Your task to perform on an android device: empty trash in google photos Image 0: 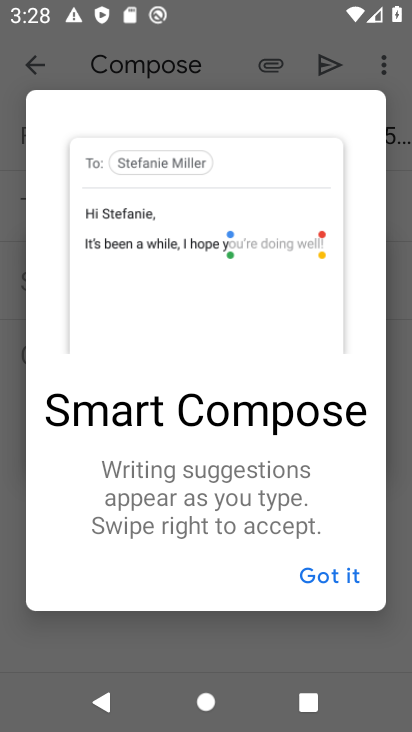
Step 0: press home button
Your task to perform on an android device: empty trash in google photos Image 1: 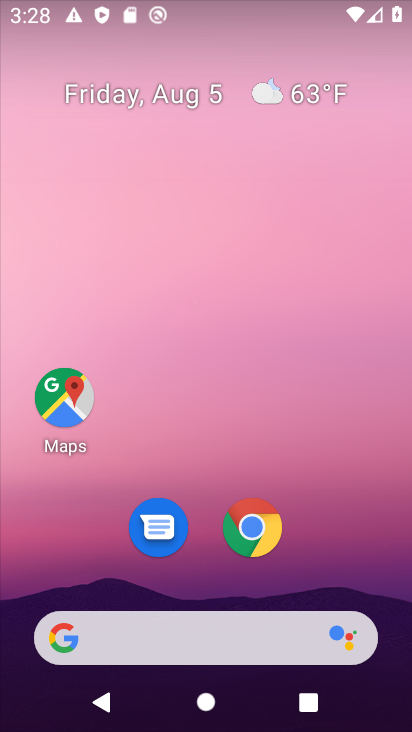
Step 1: drag from (205, 541) to (199, 46)
Your task to perform on an android device: empty trash in google photos Image 2: 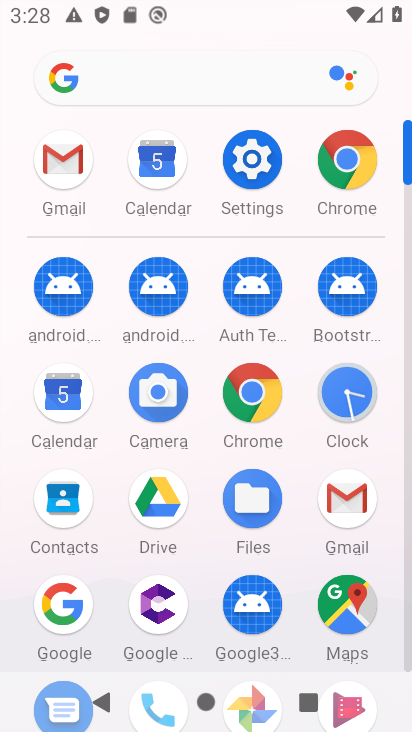
Step 2: drag from (304, 635) to (281, 306)
Your task to perform on an android device: empty trash in google photos Image 3: 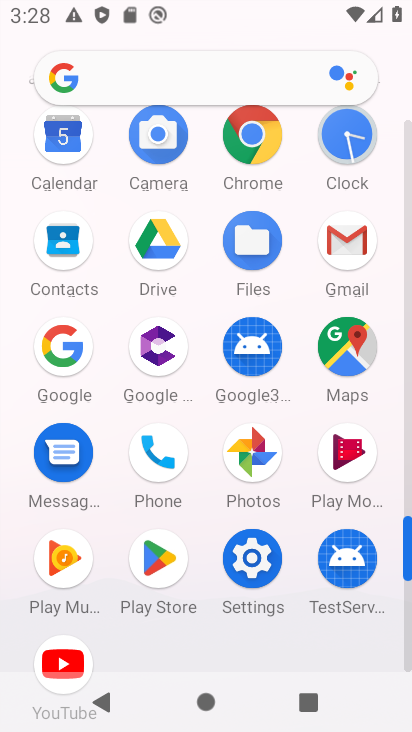
Step 3: click (247, 452)
Your task to perform on an android device: empty trash in google photos Image 4: 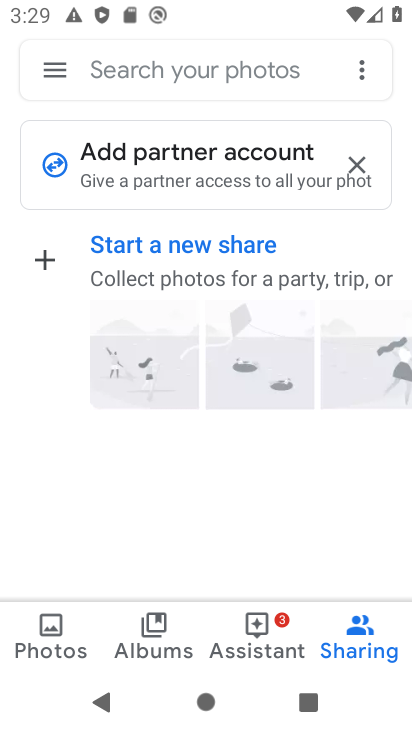
Step 4: click (53, 68)
Your task to perform on an android device: empty trash in google photos Image 5: 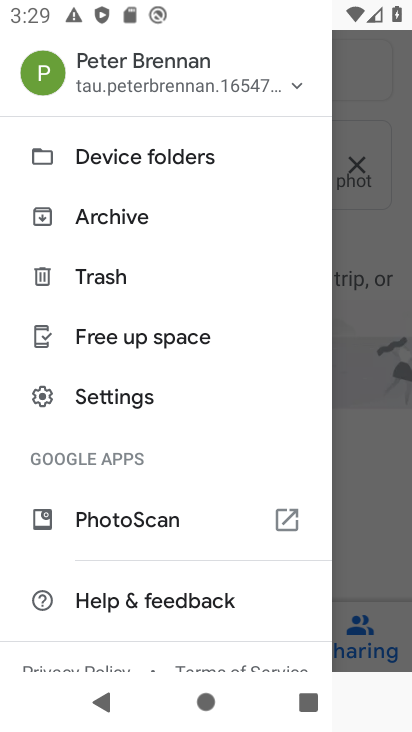
Step 5: drag from (119, 543) to (109, 385)
Your task to perform on an android device: empty trash in google photos Image 6: 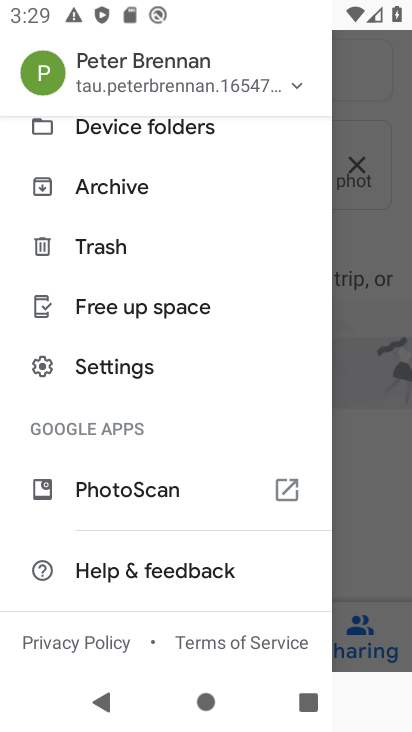
Step 6: click (103, 243)
Your task to perform on an android device: empty trash in google photos Image 7: 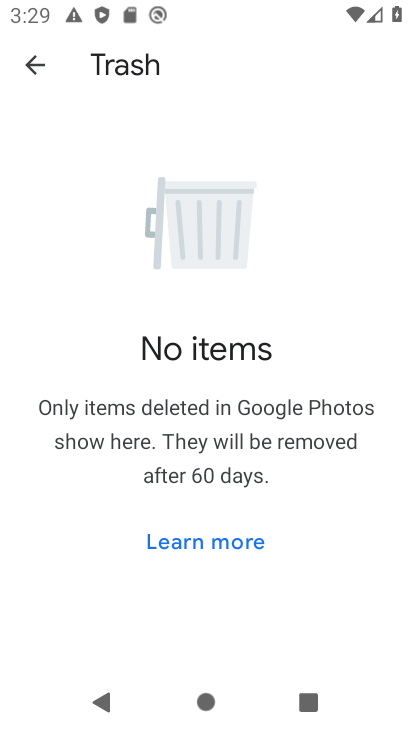
Step 7: task complete